Your task to perform on an android device: Play the last video I watched on Youtube Image 0: 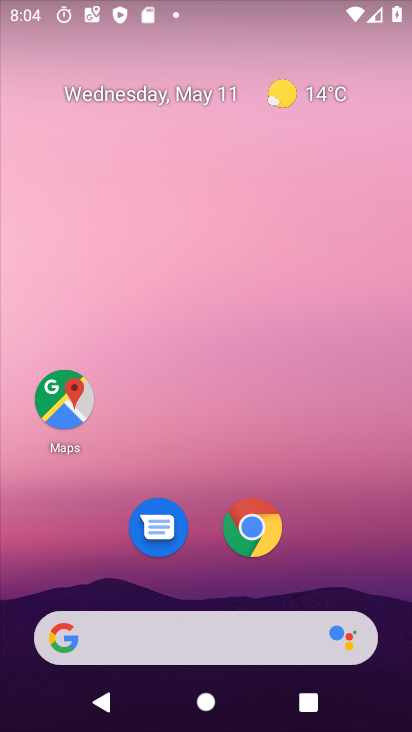
Step 0: drag from (215, 602) to (124, 50)
Your task to perform on an android device: Play the last video I watched on Youtube Image 1: 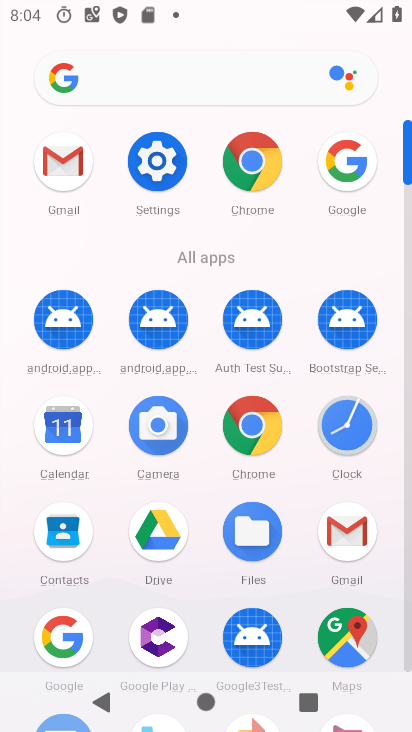
Step 1: drag from (290, 521) to (293, 112)
Your task to perform on an android device: Play the last video I watched on Youtube Image 2: 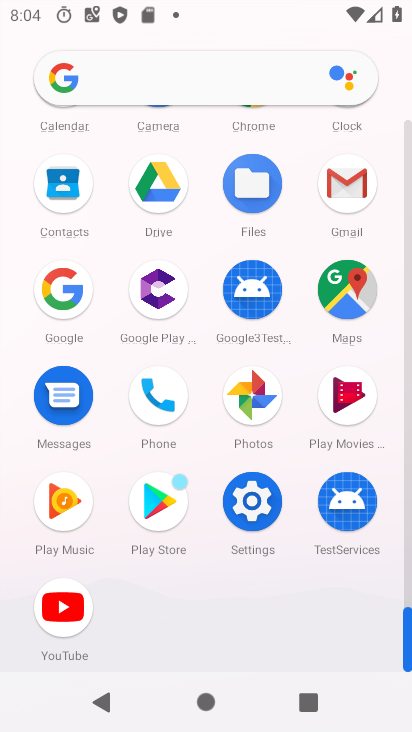
Step 2: click (73, 603)
Your task to perform on an android device: Play the last video I watched on Youtube Image 3: 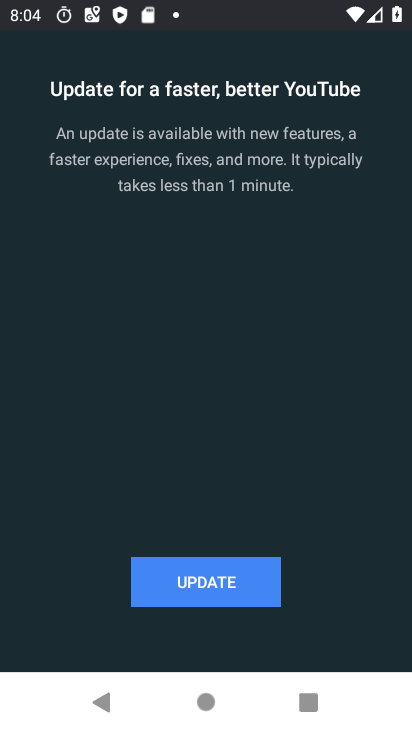
Step 3: press home button
Your task to perform on an android device: Play the last video I watched on Youtube Image 4: 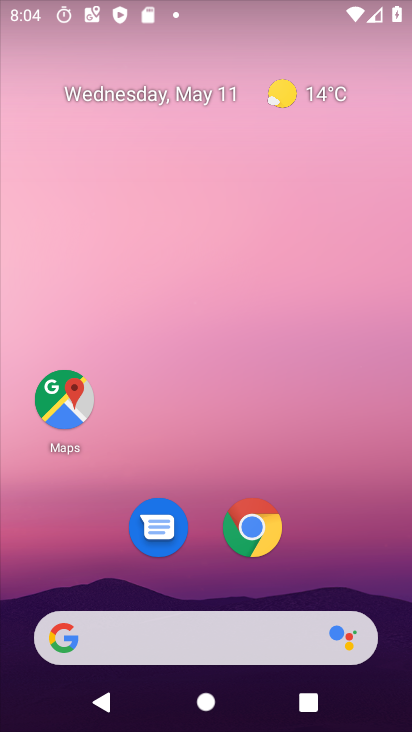
Step 4: drag from (284, 599) to (242, 124)
Your task to perform on an android device: Play the last video I watched on Youtube Image 5: 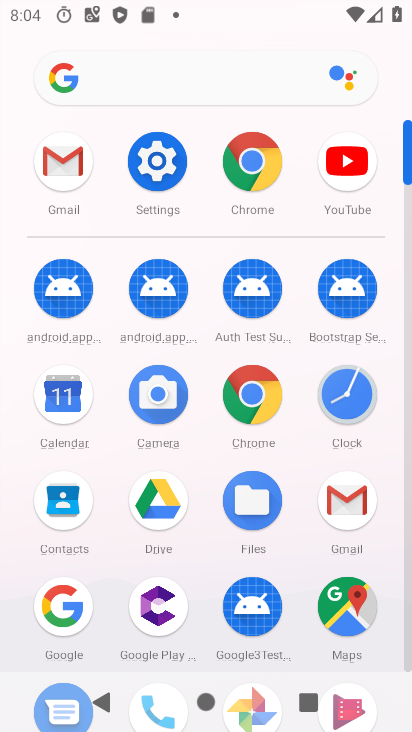
Step 5: click (360, 160)
Your task to perform on an android device: Play the last video I watched on Youtube Image 6: 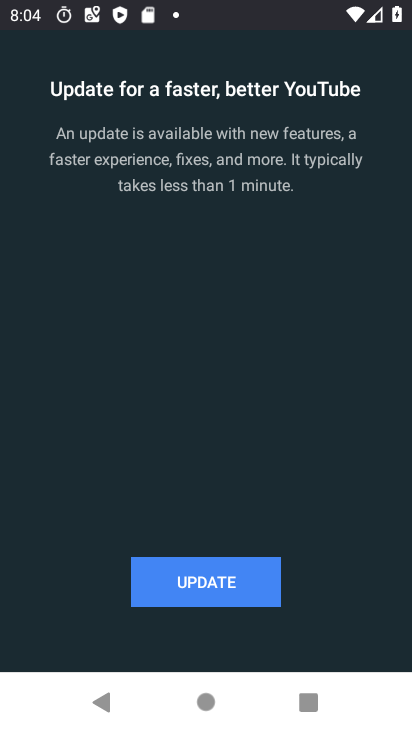
Step 6: task complete